Your task to perform on an android device: Go to eBay Image 0: 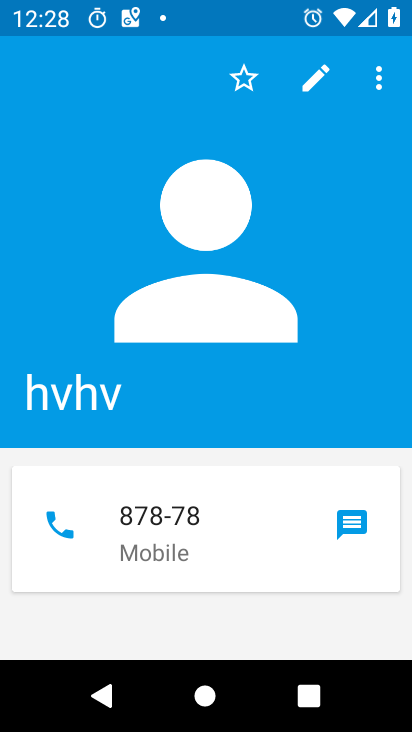
Step 0: press back button
Your task to perform on an android device: Go to eBay Image 1: 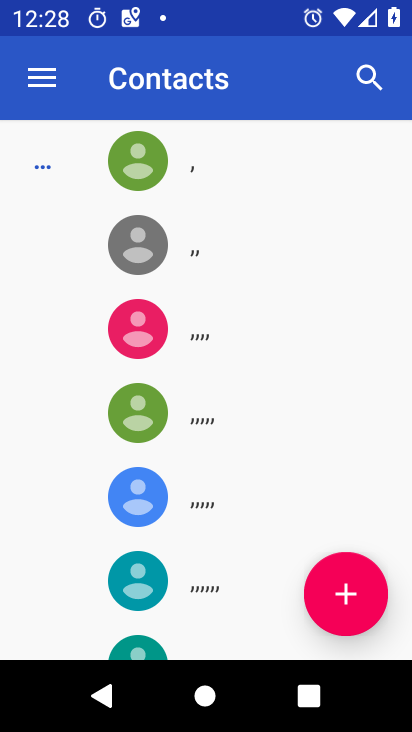
Step 1: press back button
Your task to perform on an android device: Go to eBay Image 2: 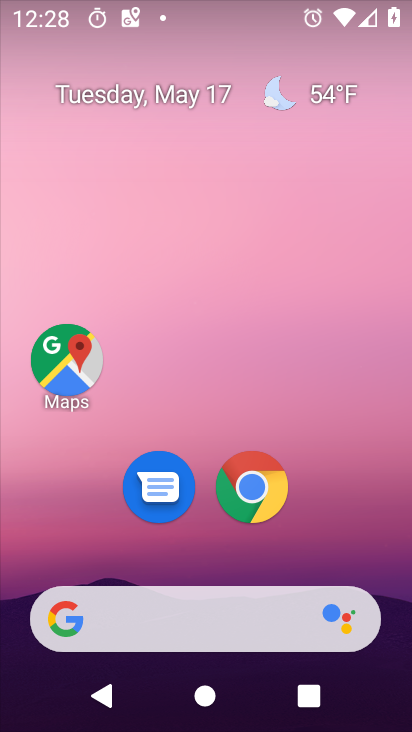
Step 2: click (248, 486)
Your task to perform on an android device: Go to eBay Image 3: 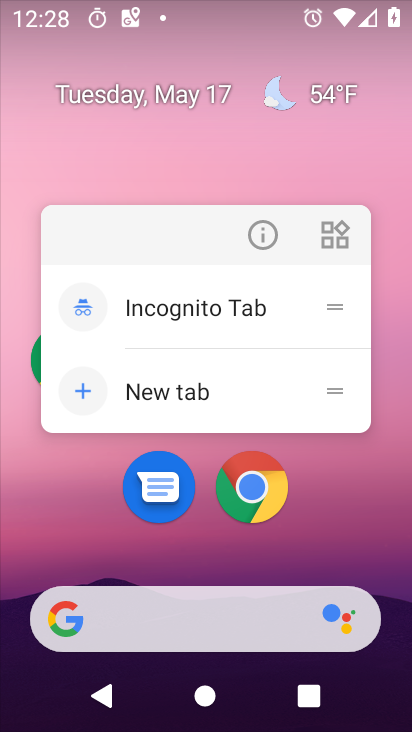
Step 3: click (243, 503)
Your task to perform on an android device: Go to eBay Image 4: 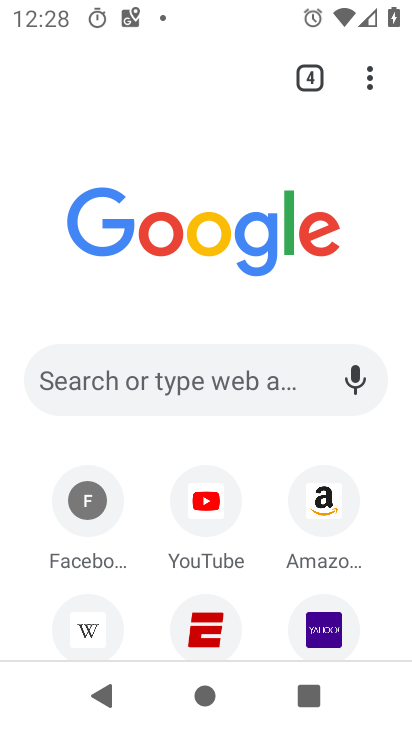
Step 4: drag from (159, 597) to (259, 153)
Your task to perform on an android device: Go to eBay Image 5: 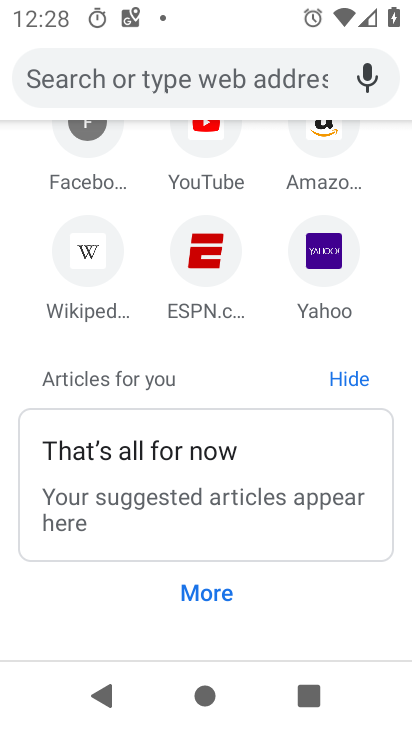
Step 5: drag from (207, 198) to (215, 646)
Your task to perform on an android device: Go to eBay Image 6: 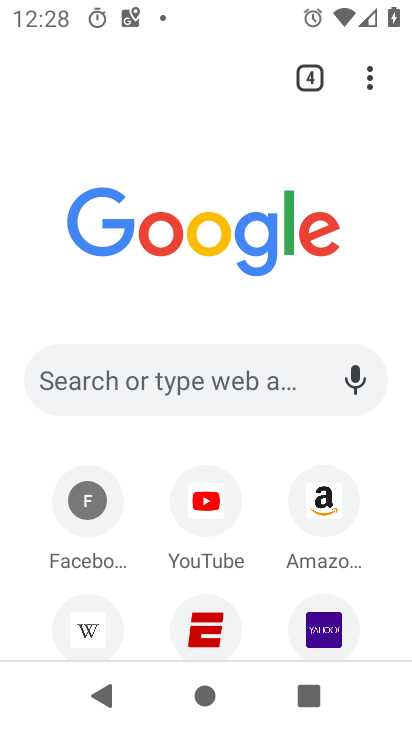
Step 6: click (81, 380)
Your task to perform on an android device: Go to eBay Image 7: 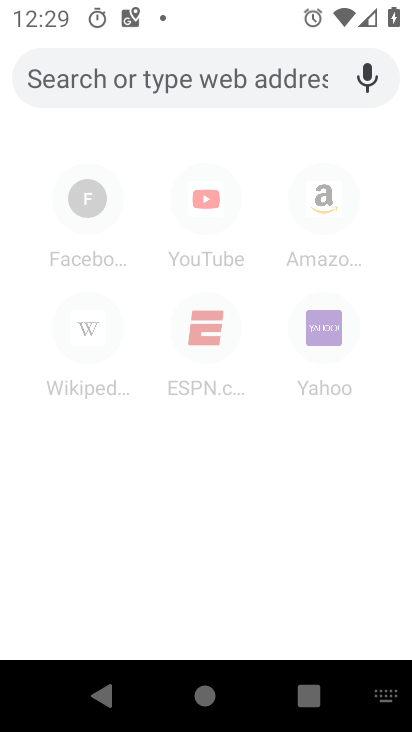
Step 7: type "ebay"
Your task to perform on an android device: Go to eBay Image 8: 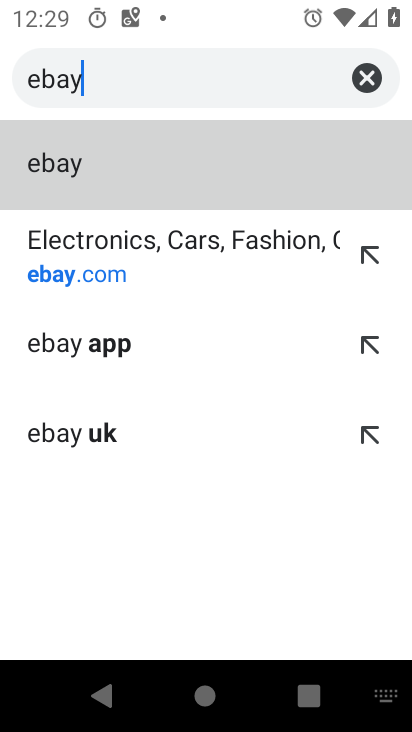
Step 8: click (101, 263)
Your task to perform on an android device: Go to eBay Image 9: 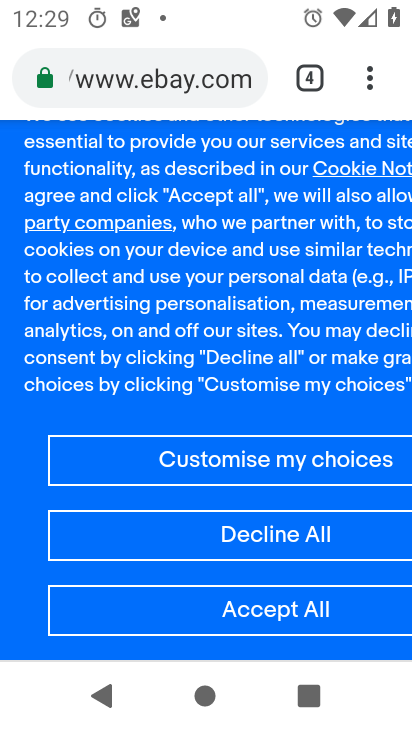
Step 9: task complete